Your task to perform on an android device: toggle sleep mode Image 0: 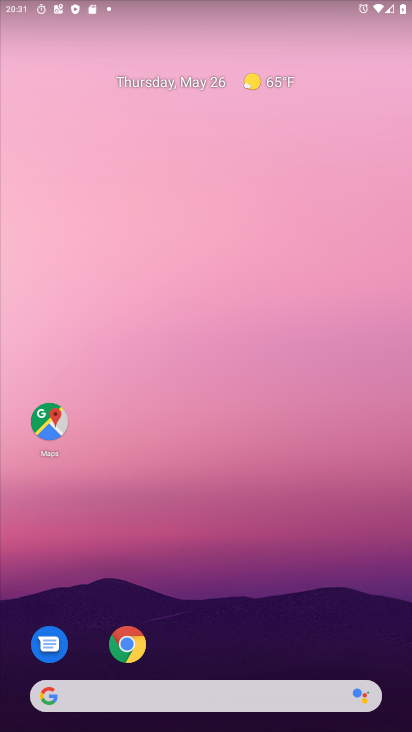
Step 0: click (275, 310)
Your task to perform on an android device: toggle sleep mode Image 1: 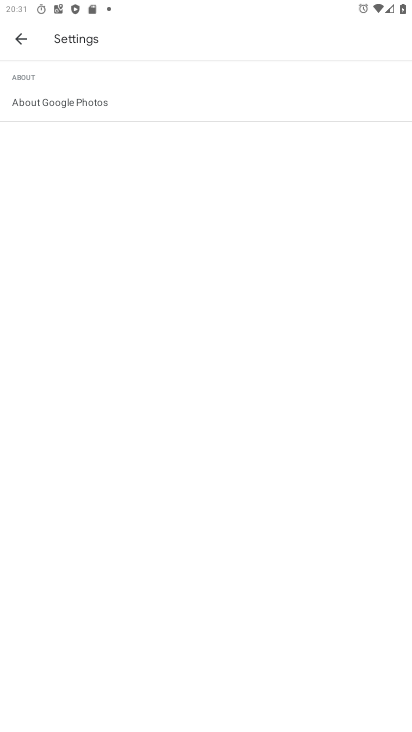
Step 1: drag from (237, 655) to (299, 101)
Your task to perform on an android device: toggle sleep mode Image 2: 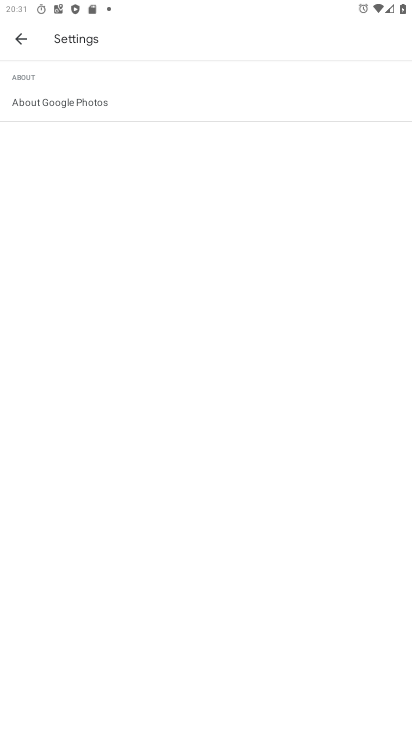
Step 2: press home button
Your task to perform on an android device: toggle sleep mode Image 3: 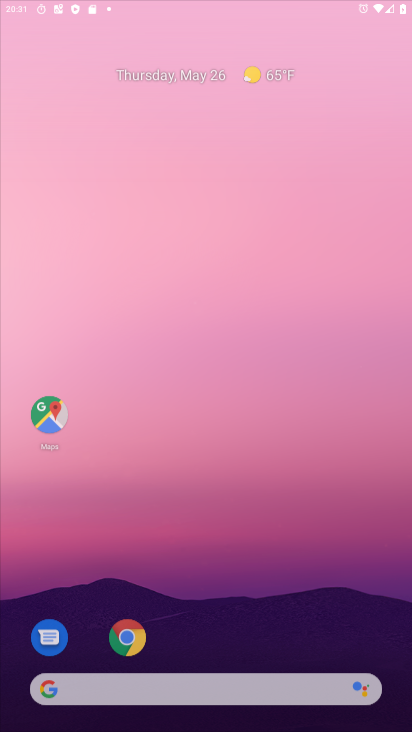
Step 3: drag from (230, 542) to (241, 77)
Your task to perform on an android device: toggle sleep mode Image 4: 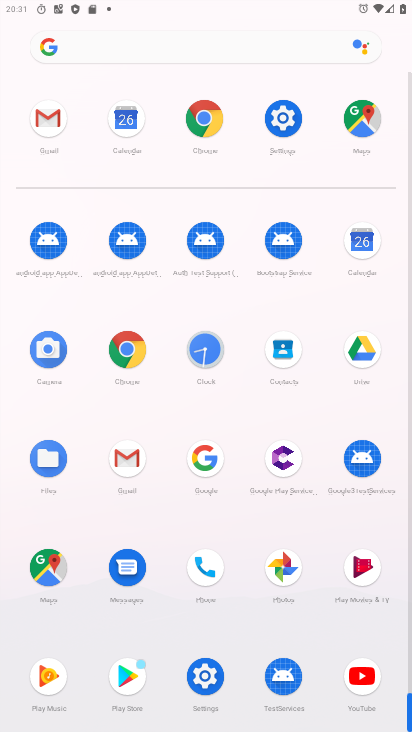
Step 4: click (209, 674)
Your task to perform on an android device: toggle sleep mode Image 5: 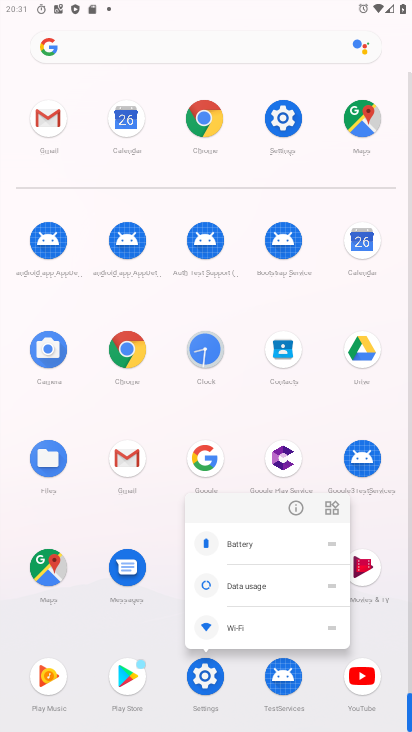
Step 5: click (286, 501)
Your task to perform on an android device: toggle sleep mode Image 6: 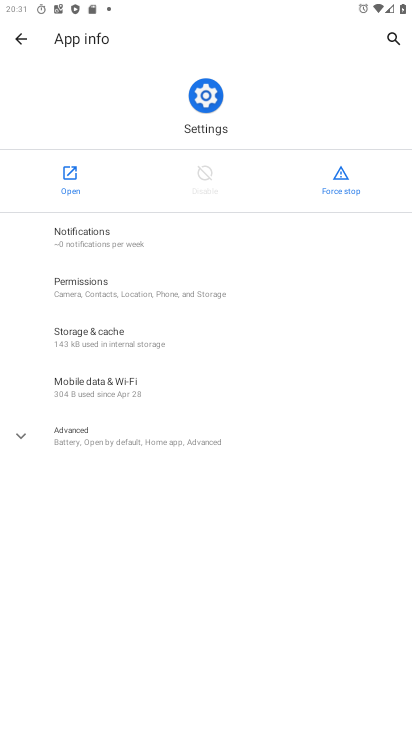
Step 6: click (63, 168)
Your task to perform on an android device: toggle sleep mode Image 7: 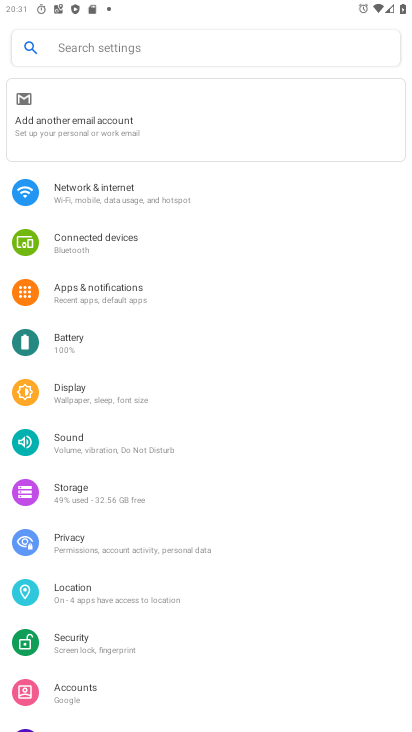
Step 7: click (148, 289)
Your task to perform on an android device: toggle sleep mode Image 8: 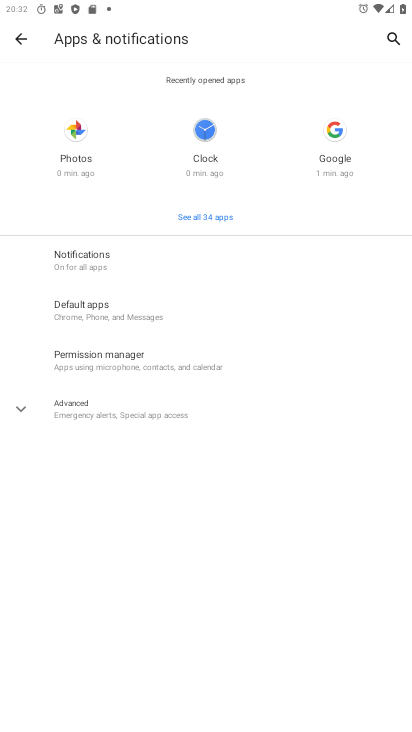
Step 8: click (143, 254)
Your task to perform on an android device: toggle sleep mode Image 9: 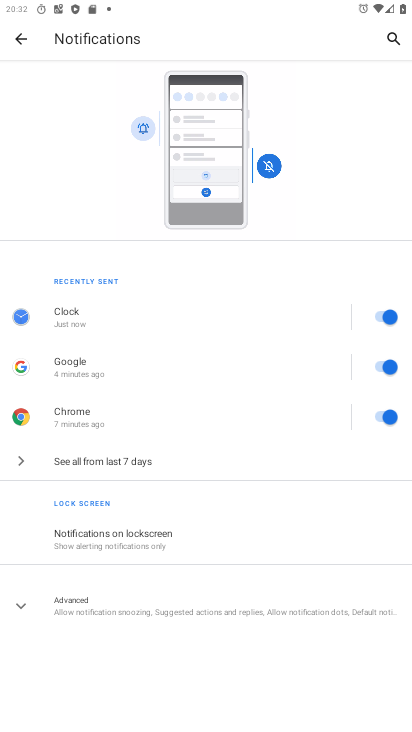
Step 9: click (23, 45)
Your task to perform on an android device: toggle sleep mode Image 10: 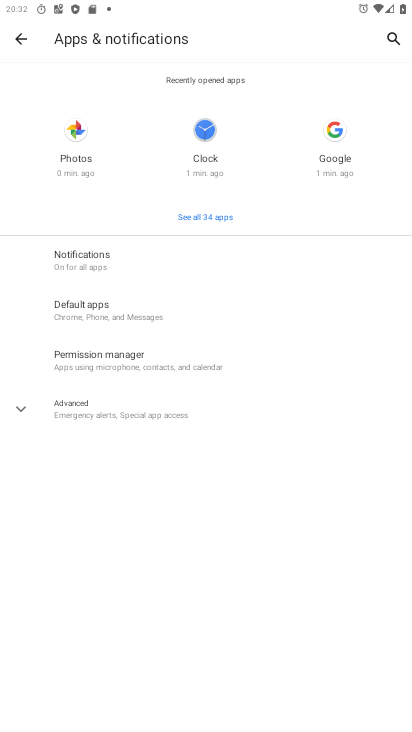
Step 10: click (17, 31)
Your task to perform on an android device: toggle sleep mode Image 11: 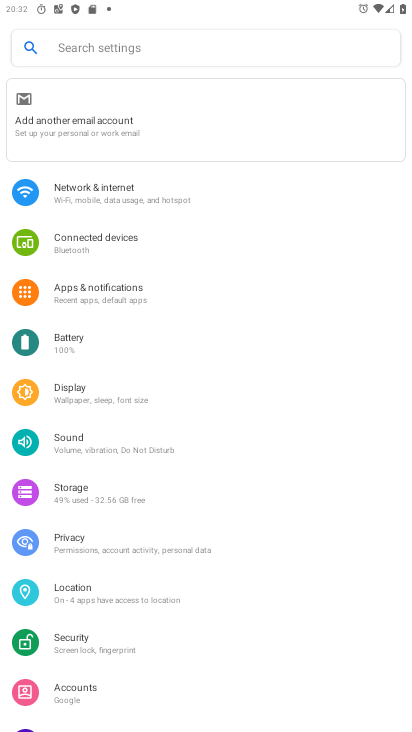
Step 11: click (72, 385)
Your task to perform on an android device: toggle sleep mode Image 12: 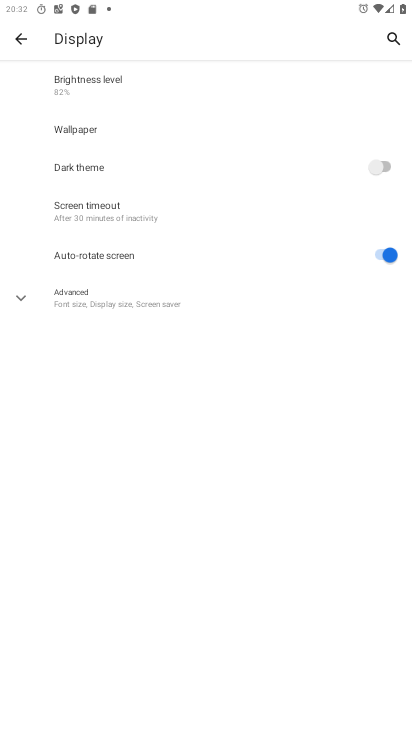
Step 12: click (249, 208)
Your task to perform on an android device: toggle sleep mode Image 13: 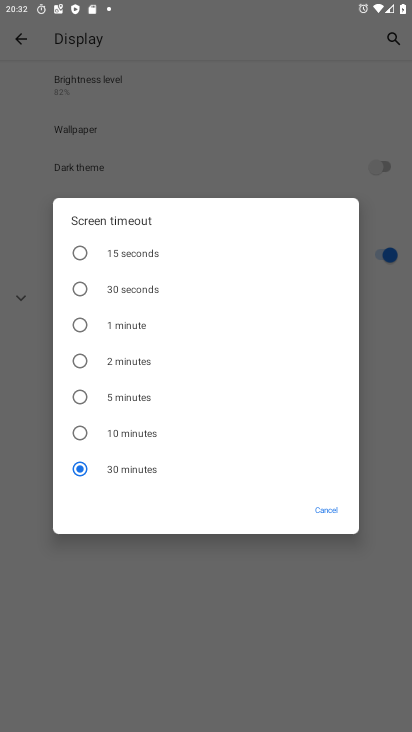
Step 13: click (80, 392)
Your task to perform on an android device: toggle sleep mode Image 14: 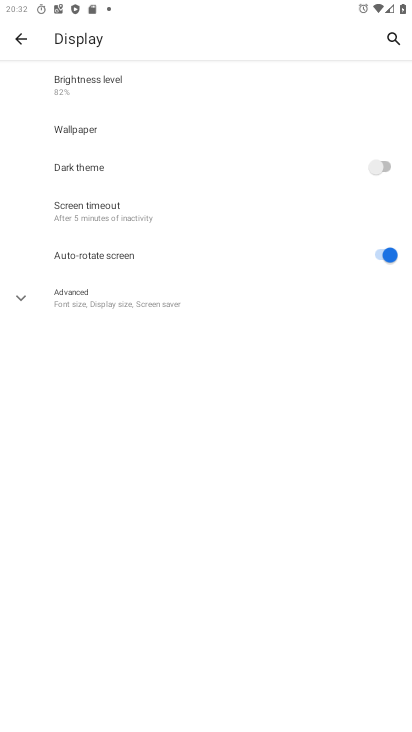
Step 14: task complete